Your task to perform on an android device: Play the new Bruno Mars video on YouTube Image 0: 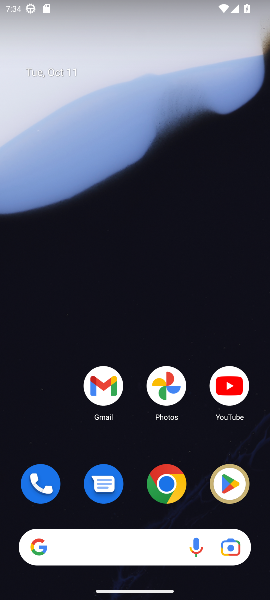
Step 0: click (231, 389)
Your task to perform on an android device: Play the new Bruno Mars video on YouTube Image 1: 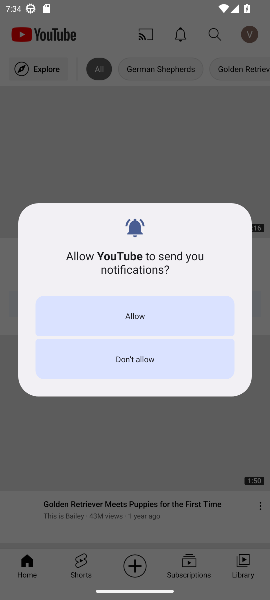
Step 1: click (133, 312)
Your task to perform on an android device: Play the new Bruno Mars video on YouTube Image 2: 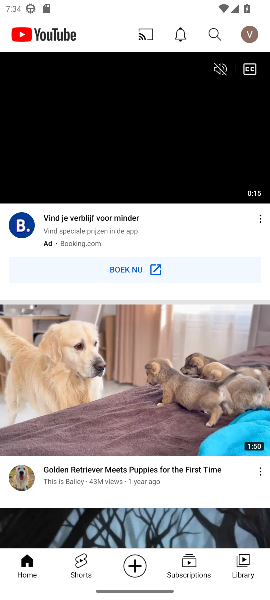
Step 2: click (210, 32)
Your task to perform on an android device: Play the new Bruno Mars video on YouTube Image 3: 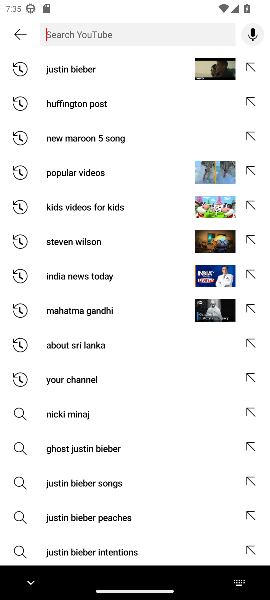
Step 3: type "new Bruno Mars video"
Your task to perform on an android device: Play the new Bruno Mars video on YouTube Image 4: 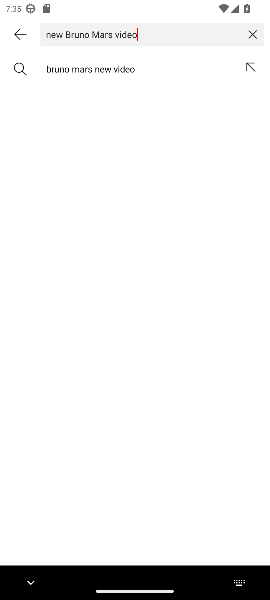
Step 4: click (129, 71)
Your task to perform on an android device: Play the new Bruno Mars video on YouTube Image 5: 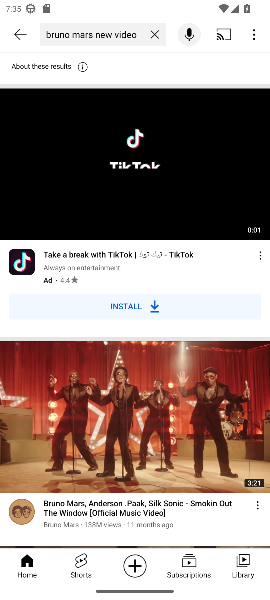
Step 5: drag from (117, 522) to (167, 356)
Your task to perform on an android device: Play the new Bruno Mars video on YouTube Image 6: 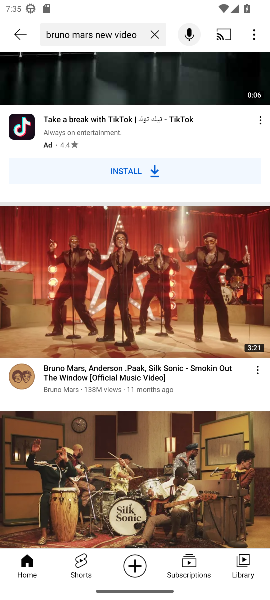
Step 6: drag from (125, 461) to (185, 307)
Your task to perform on an android device: Play the new Bruno Mars video on YouTube Image 7: 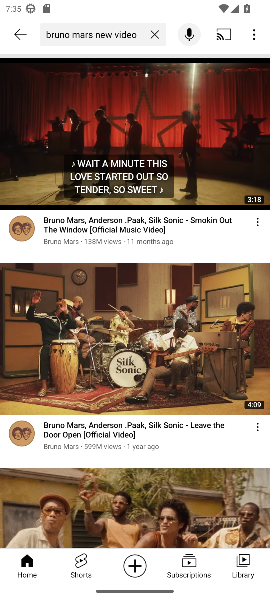
Step 7: click (185, 134)
Your task to perform on an android device: Play the new Bruno Mars video on YouTube Image 8: 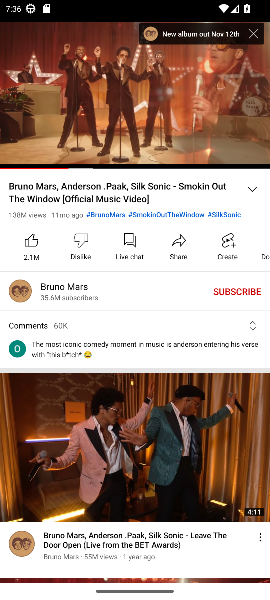
Step 8: task complete